Your task to perform on an android device: Show me productivity apps on the Play Store Image 0: 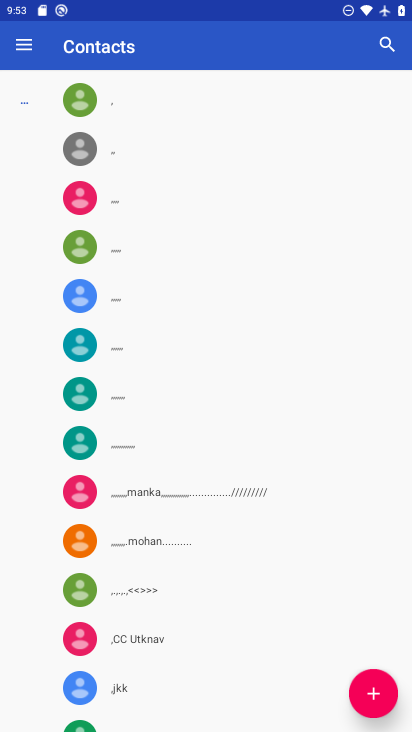
Step 0: press home button
Your task to perform on an android device: Show me productivity apps on the Play Store Image 1: 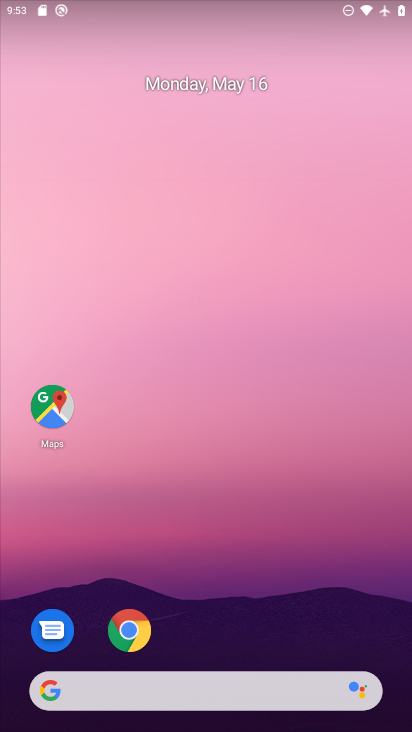
Step 1: drag from (220, 634) to (219, 92)
Your task to perform on an android device: Show me productivity apps on the Play Store Image 2: 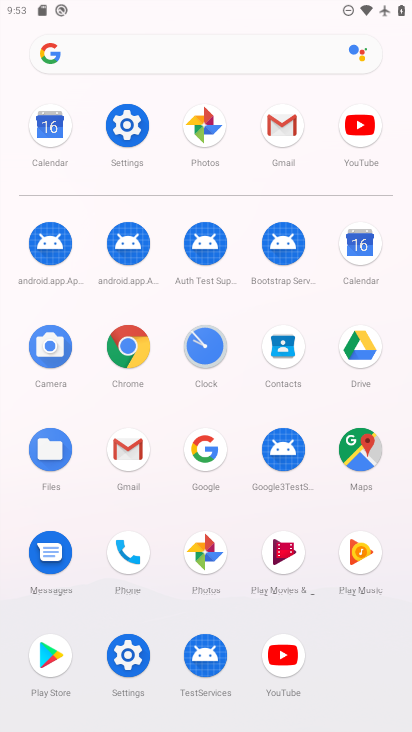
Step 2: click (53, 656)
Your task to perform on an android device: Show me productivity apps on the Play Store Image 3: 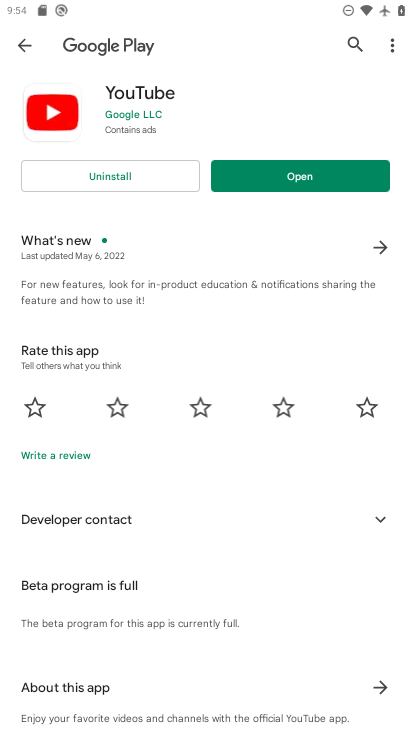
Step 3: click (16, 48)
Your task to perform on an android device: Show me productivity apps on the Play Store Image 4: 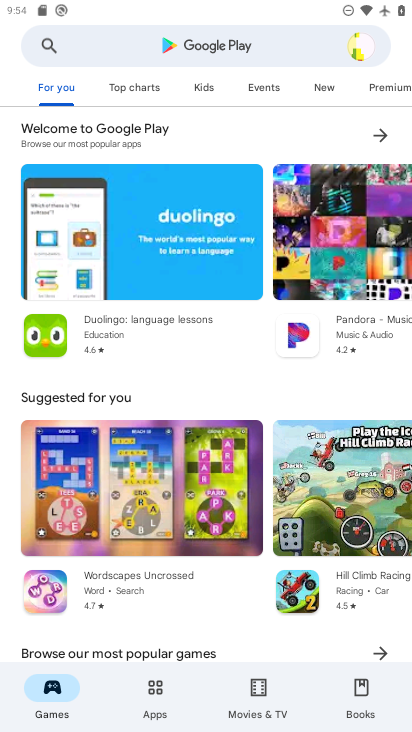
Step 4: click (161, 710)
Your task to perform on an android device: Show me productivity apps on the Play Store Image 5: 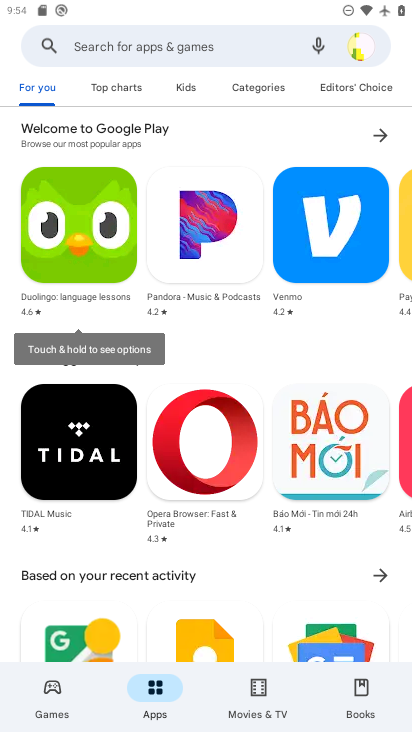
Step 5: click (254, 96)
Your task to perform on an android device: Show me productivity apps on the Play Store Image 6: 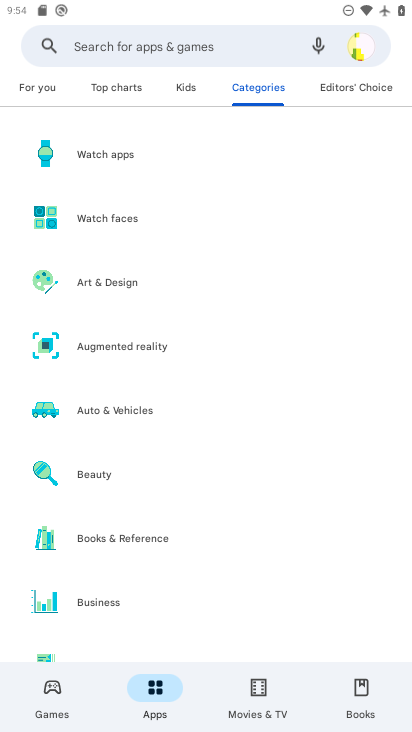
Step 6: drag from (138, 600) to (161, 246)
Your task to perform on an android device: Show me productivity apps on the Play Store Image 7: 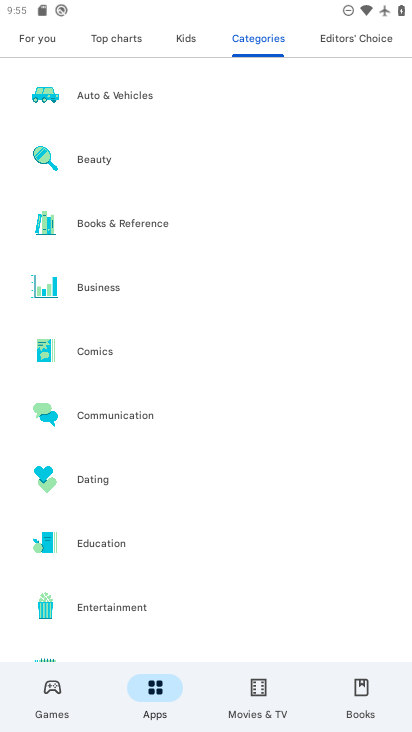
Step 7: drag from (161, 557) to (168, 248)
Your task to perform on an android device: Show me productivity apps on the Play Store Image 8: 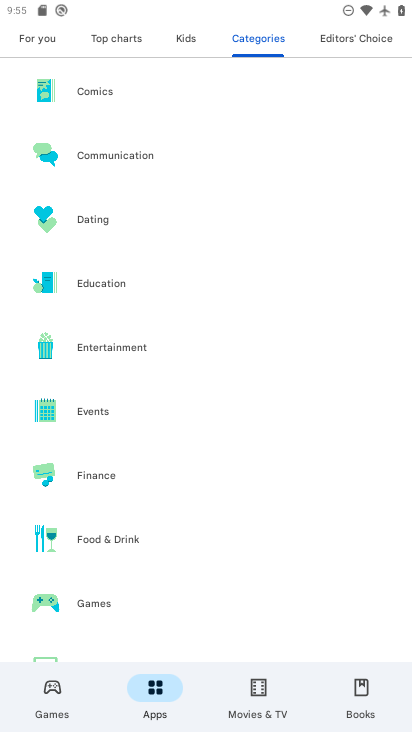
Step 8: drag from (165, 531) to (187, 209)
Your task to perform on an android device: Show me productivity apps on the Play Store Image 9: 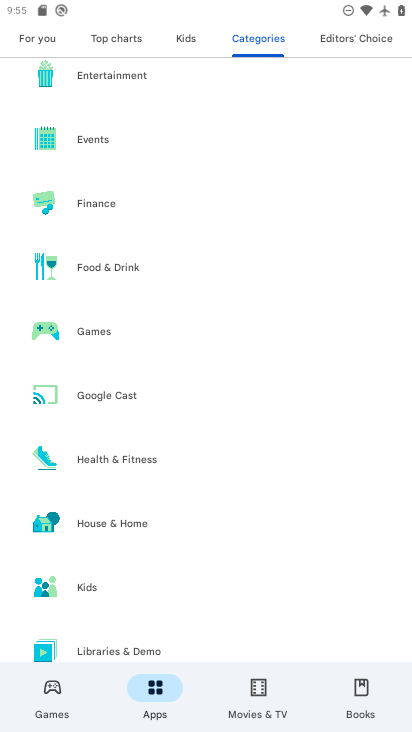
Step 9: drag from (141, 581) to (149, 209)
Your task to perform on an android device: Show me productivity apps on the Play Store Image 10: 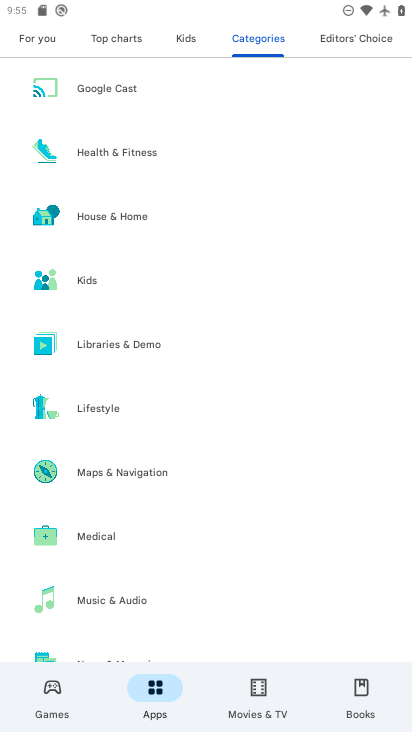
Step 10: drag from (155, 558) to (192, 258)
Your task to perform on an android device: Show me productivity apps on the Play Store Image 11: 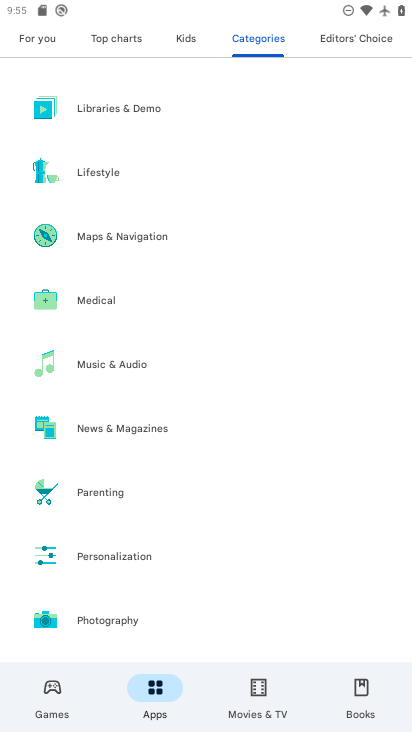
Step 11: drag from (149, 607) to (160, 414)
Your task to perform on an android device: Show me productivity apps on the Play Store Image 12: 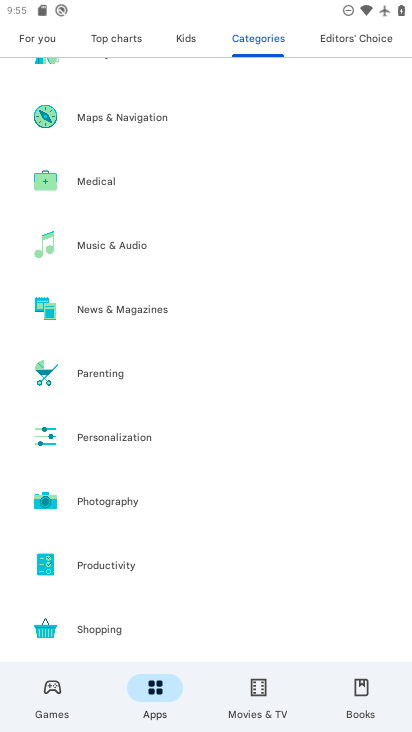
Step 12: click (135, 565)
Your task to perform on an android device: Show me productivity apps on the Play Store Image 13: 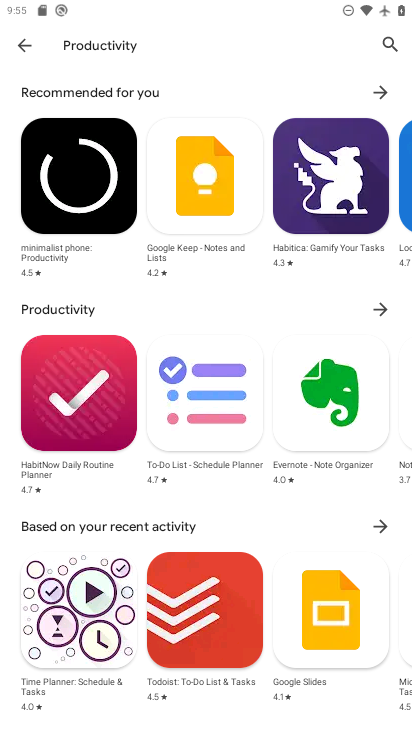
Step 13: task complete